Your task to perform on an android device: Open location settings Image 0: 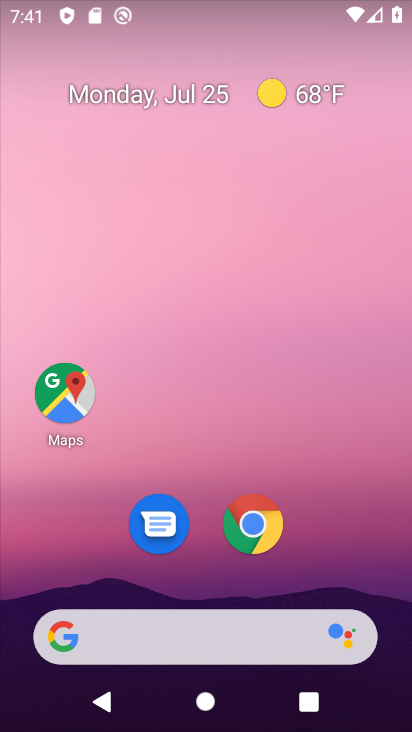
Step 0: drag from (323, 548) to (322, 35)
Your task to perform on an android device: Open location settings Image 1: 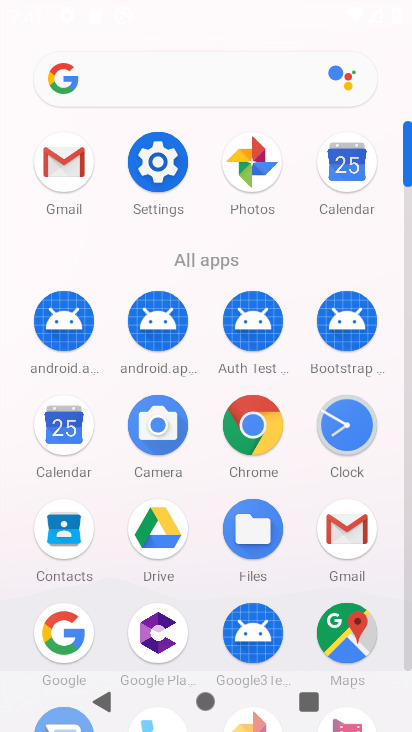
Step 1: click (162, 163)
Your task to perform on an android device: Open location settings Image 2: 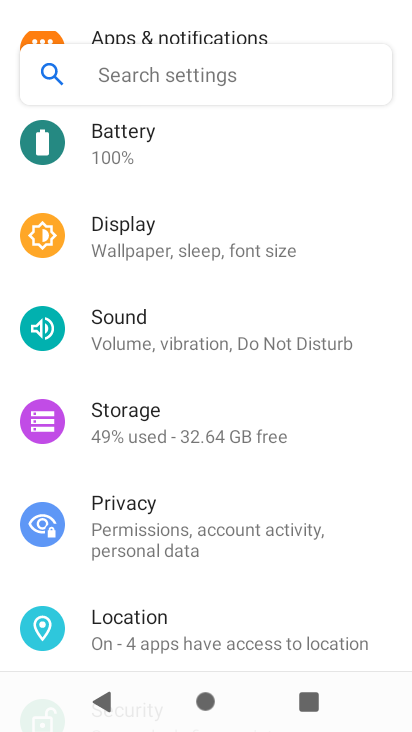
Step 2: drag from (232, 469) to (245, 228)
Your task to perform on an android device: Open location settings Image 3: 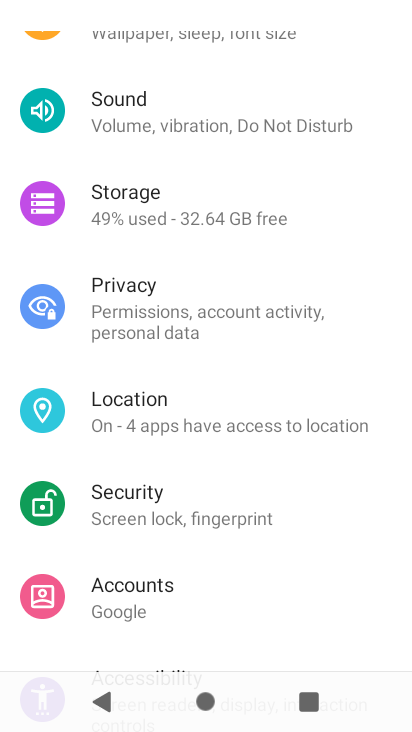
Step 3: click (233, 415)
Your task to perform on an android device: Open location settings Image 4: 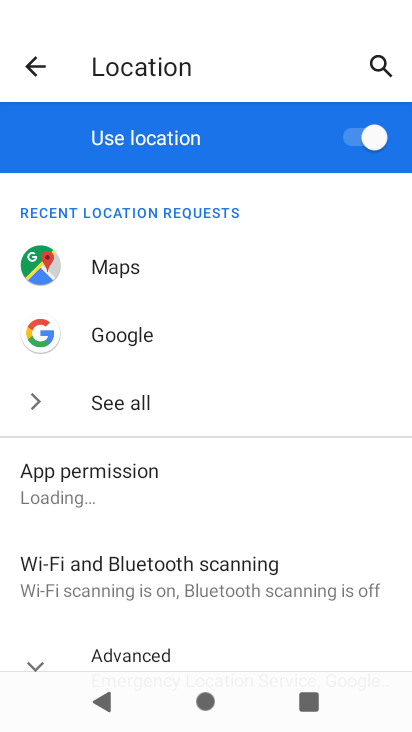
Step 4: task complete